Your task to perform on an android device: set the stopwatch Image 0: 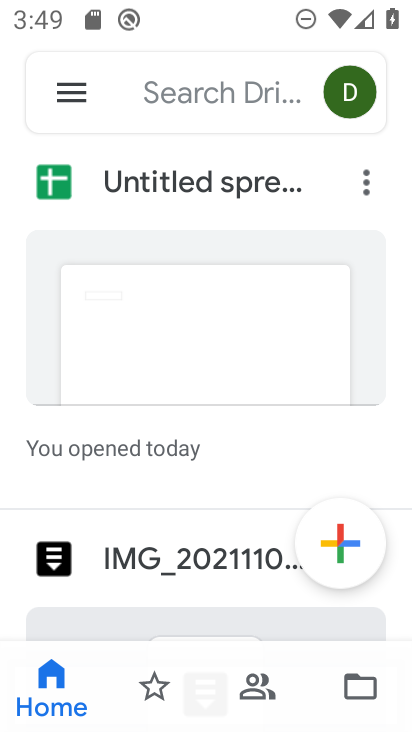
Step 0: press home button
Your task to perform on an android device: set the stopwatch Image 1: 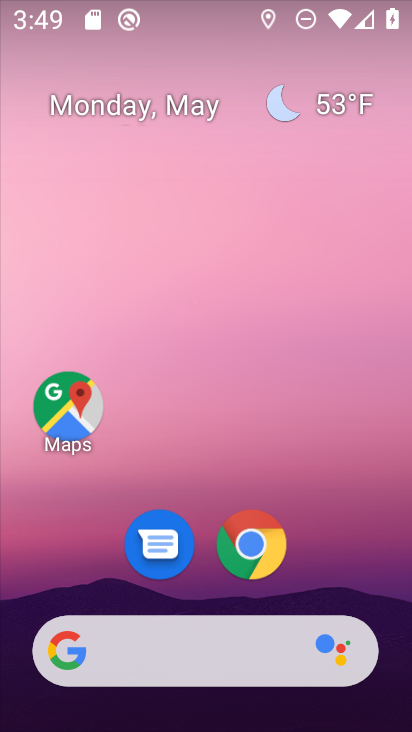
Step 1: drag from (185, 727) to (224, 97)
Your task to perform on an android device: set the stopwatch Image 2: 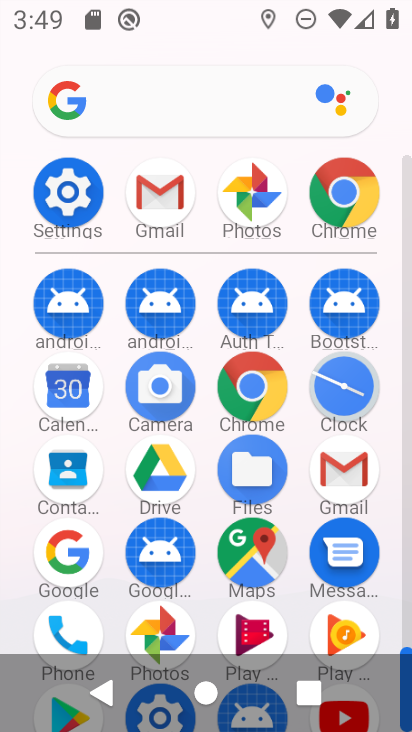
Step 2: click (338, 393)
Your task to perform on an android device: set the stopwatch Image 3: 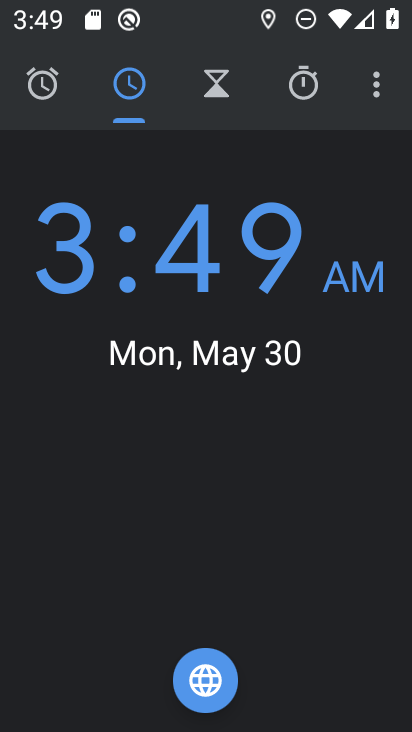
Step 3: click (298, 92)
Your task to perform on an android device: set the stopwatch Image 4: 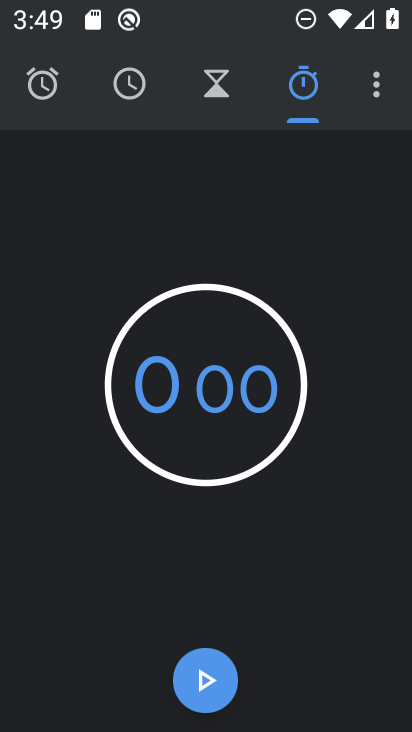
Step 4: click (223, 682)
Your task to perform on an android device: set the stopwatch Image 5: 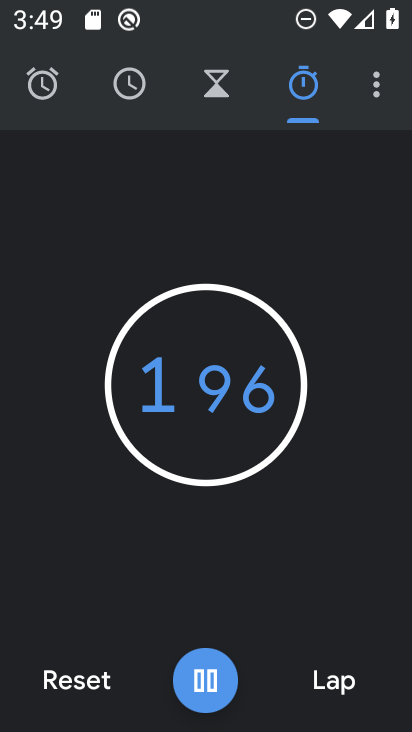
Step 5: click (203, 690)
Your task to perform on an android device: set the stopwatch Image 6: 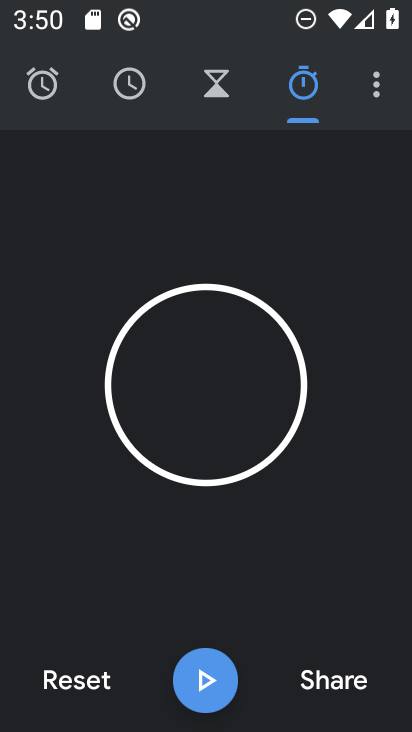
Step 6: task complete